Your task to perform on an android device: Open network settings Image 0: 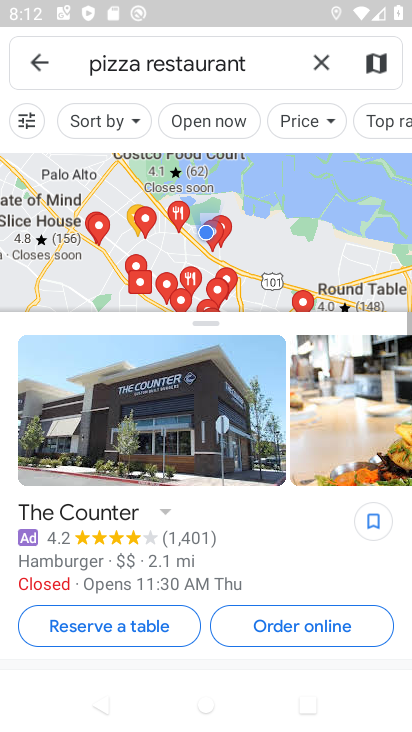
Step 0: press home button
Your task to perform on an android device: Open network settings Image 1: 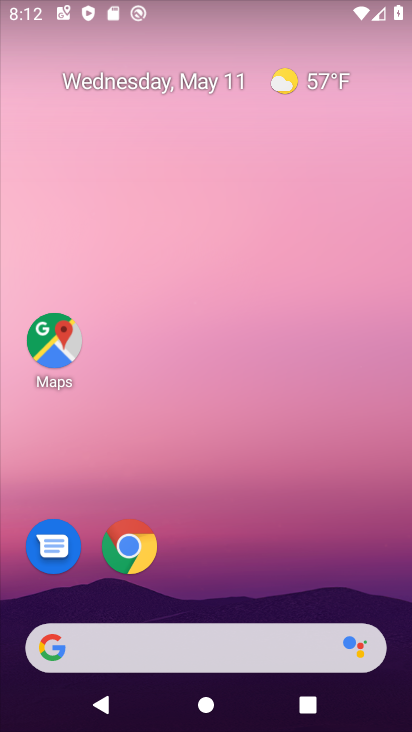
Step 1: drag from (201, 600) to (198, 234)
Your task to perform on an android device: Open network settings Image 2: 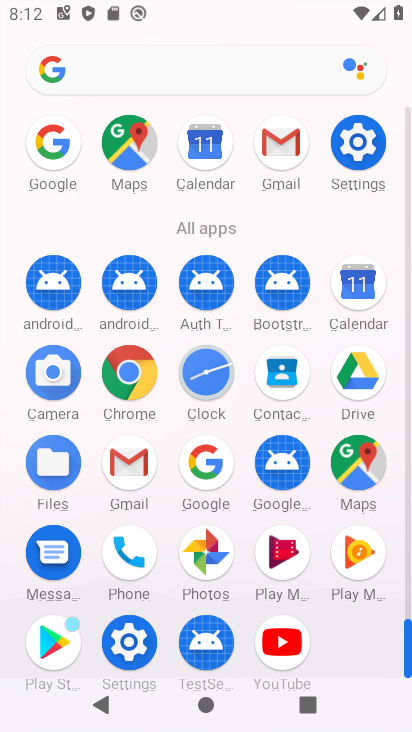
Step 2: click (343, 157)
Your task to perform on an android device: Open network settings Image 3: 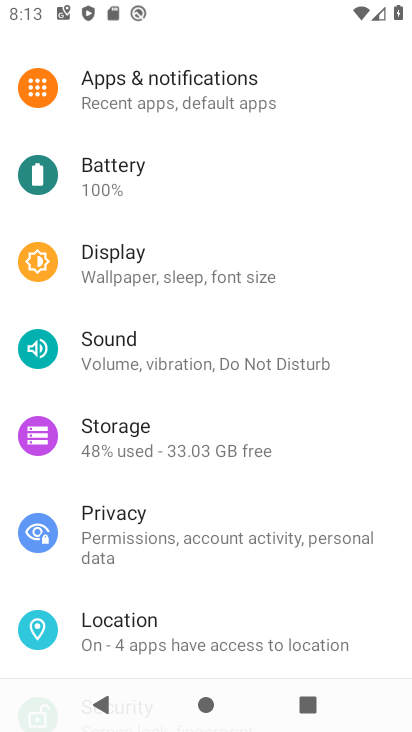
Step 3: drag from (198, 224) to (198, 509)
Your task to perform on an android device: Open network settings Image 4: 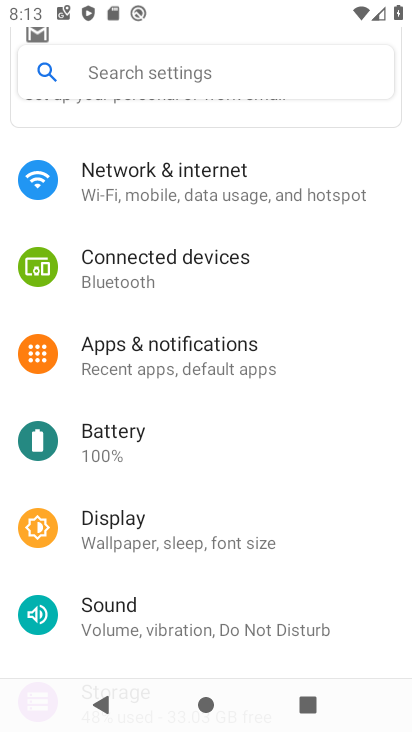
Step 4: click (184, 191)
Your task to perform on an android device: Open network settings Image 5: 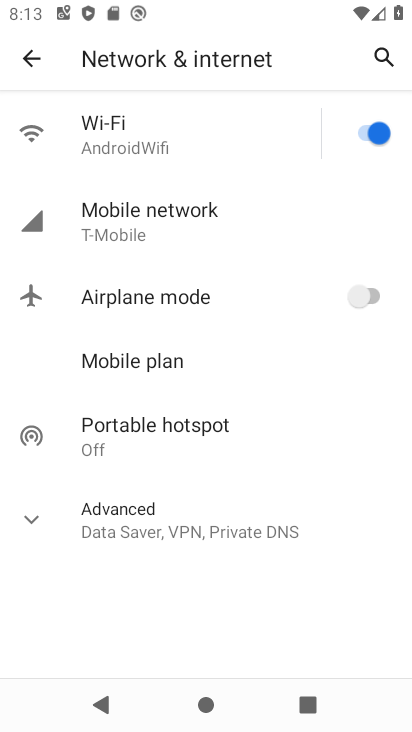
Step 5: click (169, 225)
Your task to perform on an android device: Open network settings Image 6: 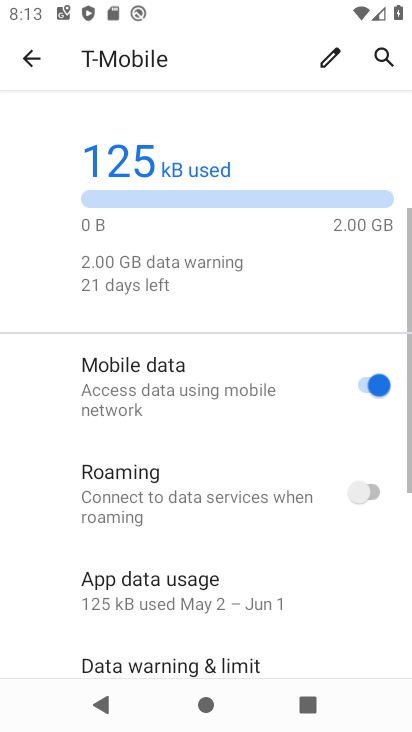
Step 6: task complete